Your task to perform on an android device: Search for Mexican restaurants on Maps Image 0: 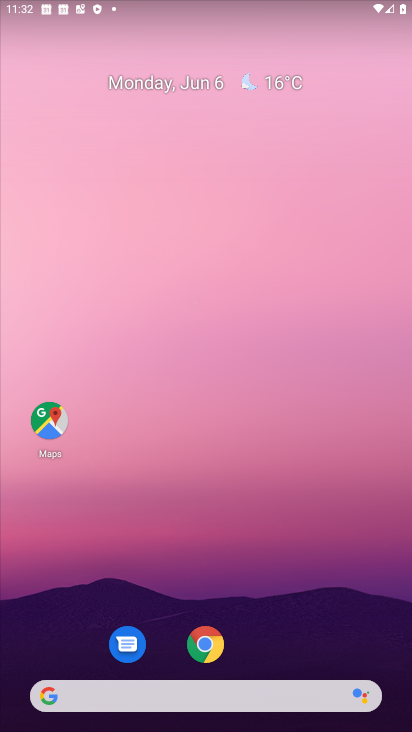
Step 0: click (53, 420)
Your task to perform on an android device: Search for Mexican restaurants on Maps Image 1: 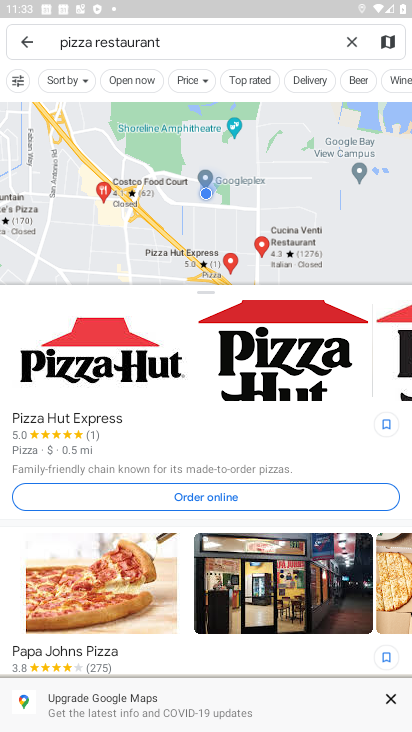
Step 1: click (353, 44)
Your task to perform on an android device: Search for Mexican restaurants on Maps Image 2: 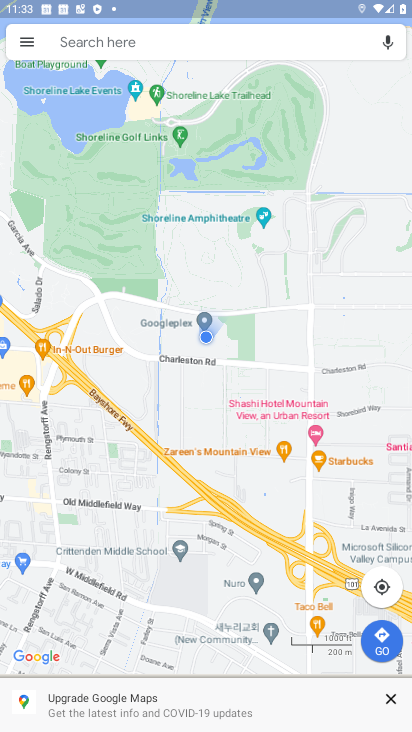
Step 2: click (234, 39)
Your task to perform on an android device: Search for Mexican restaurants on Maps Image 3: 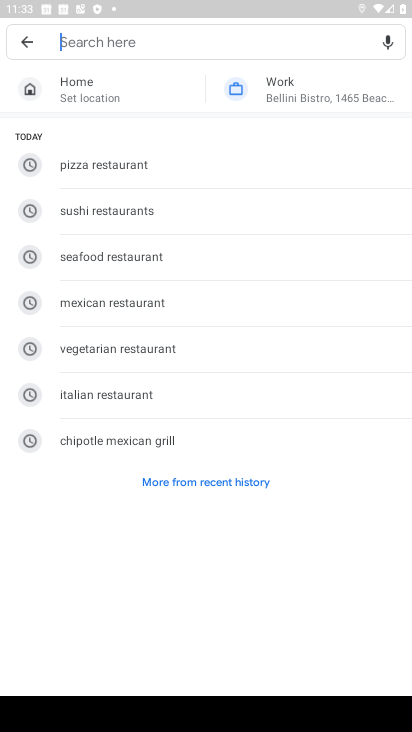
Step 3: click (187, 306)
Your task to perform on an android device: Search for Mexican restaurants on Maps Image 4: 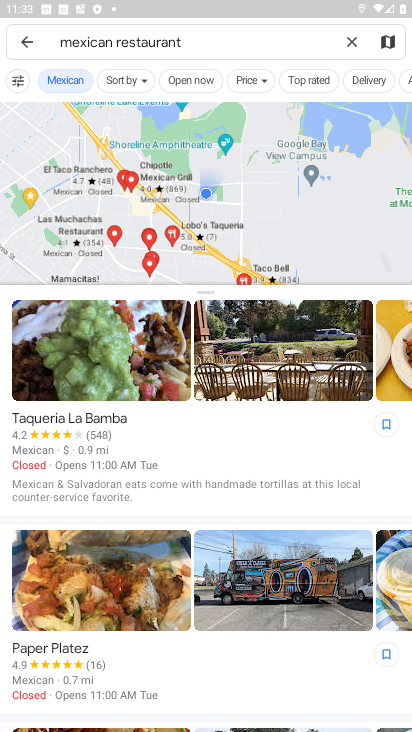
Step 4: task complete